Your task to perform on an android device: find photos in the google photos app Image 0: 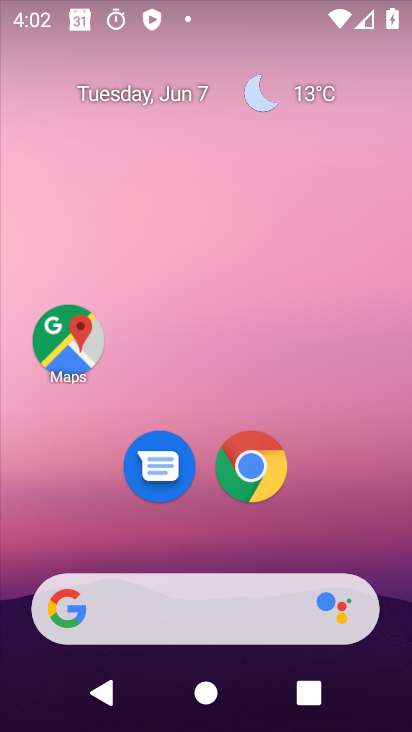
Step 0: drag from (399, 560) to (312, 220)
Your task to perform on an android device: find photos in the google photos app Image 1: 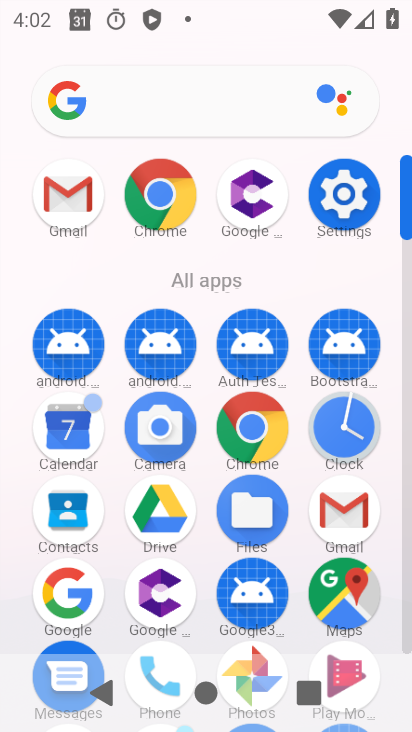
Step 1: click (406, 643)
Your task to perform on an android device: find photos in the google photos app Image 2: 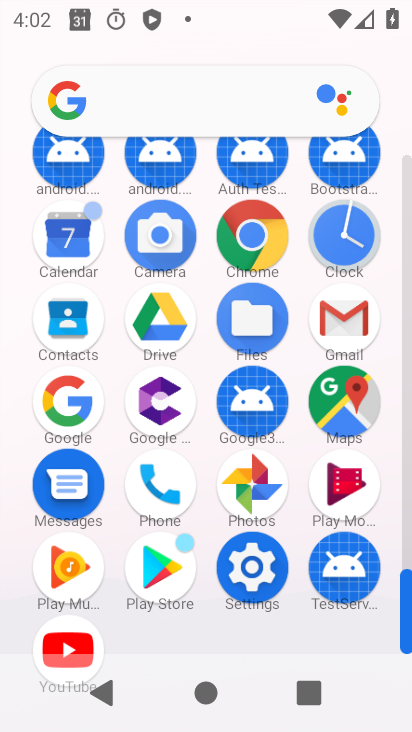
Step 2: click (245, 502)
Your task to perform on an android device: find photos in the google photos app Image 3: 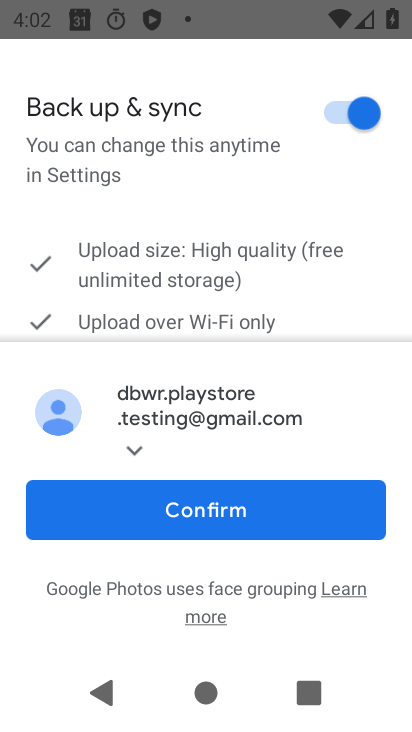
Step 3: click (265, 506)
Your task to perform on an android device: find photos in the google photos app Image 4: 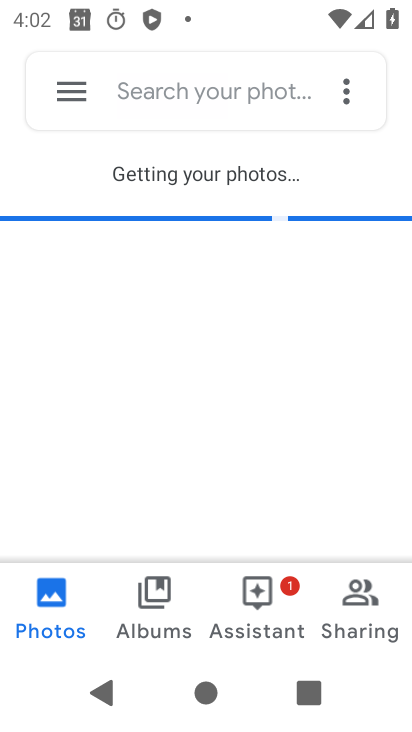
Step 4: task complete